Your task to perform on an android device: allow cookies in the chrome app Image 0: 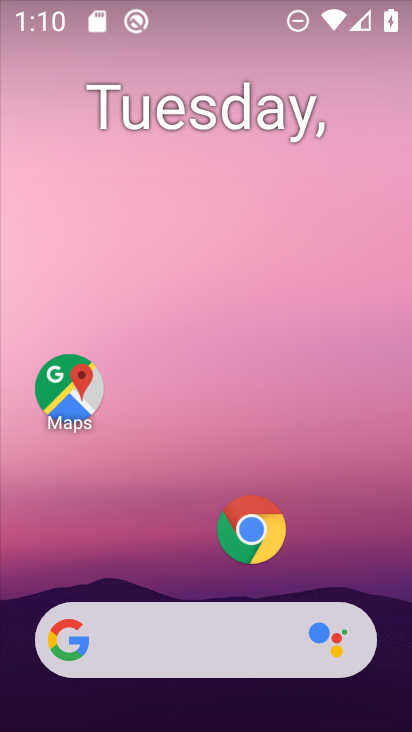
Step 0: drag from (175, 676) to (211, 257)
Your task to perform on an android device: allow cookies in the chrome app Image 1: 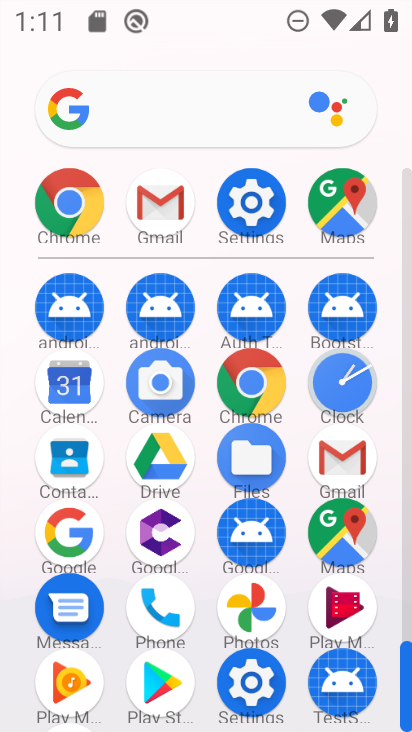
Step 1: click (84, 201)
Your task to perform on an android device: allow cookies in the chrome app Image 2: 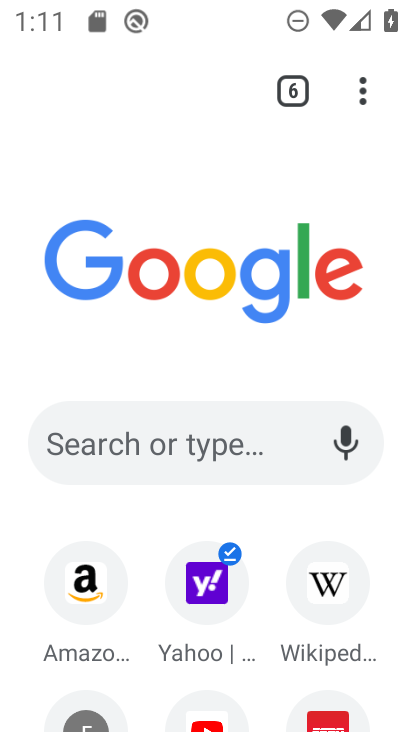
Step 2: click (368, 105)
Your task to perform on an android device: allow cookies in the chrome app Image 3: 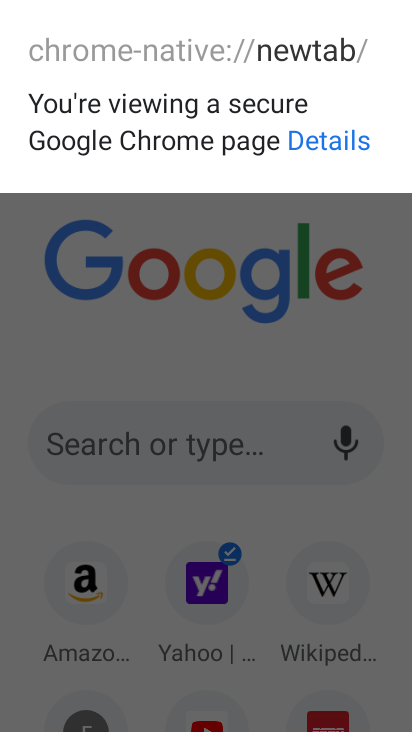
Step 3: click (253, 286)
Your task to perform on an android device: allow cookies in the chrome app Image 4: 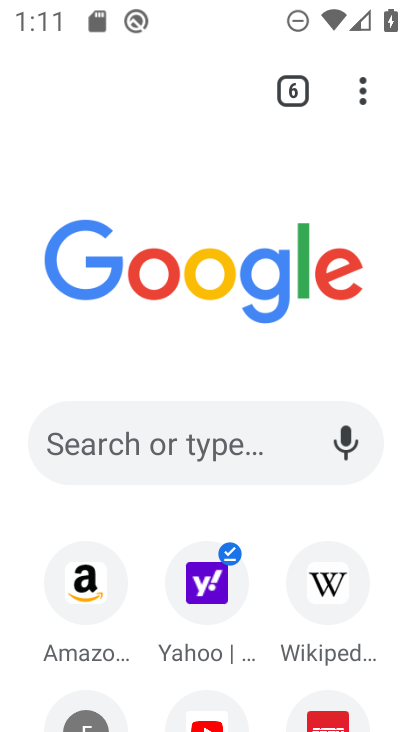
Step 4: click (368, 99)
Your task to perform on an android device: allow cookies in the chrome app Image 5: 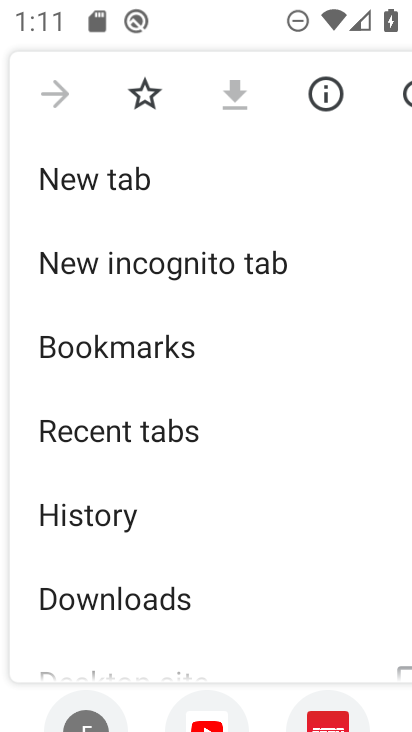
Step 5: drag from (161, 590) to (232, 289)
Your task to perform on an android device: allow cookies in the chrome app Image 6: 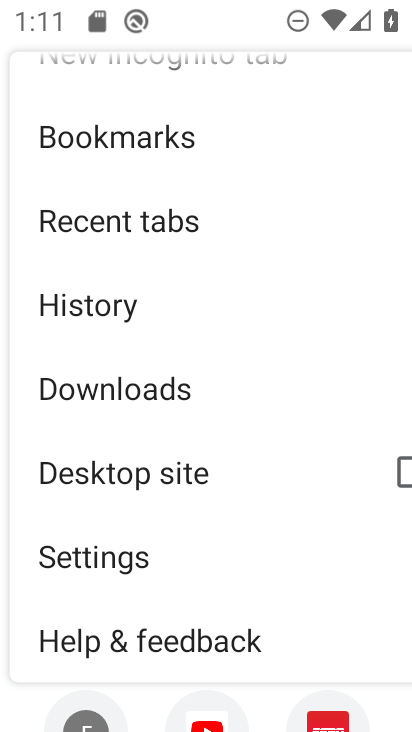
Step 6: click (92, 544)
Your task to perform on an android device: allow cookies in the chrome app Image 7: 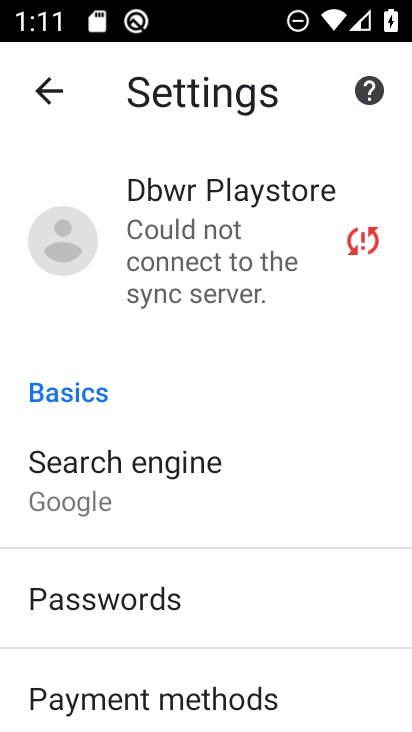
Step 7: drag from (71, 674) to (148, 362)
Your task to perform on an android device: allow cookies in the chrome app Image 8: 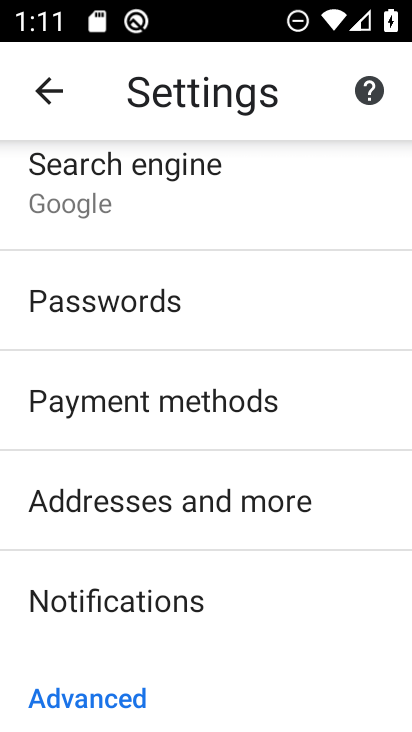
Step 8: drag from (162, 658) to (200, 485)
Your task to perform on an android device: allow cookies in the chrome app Image 9: 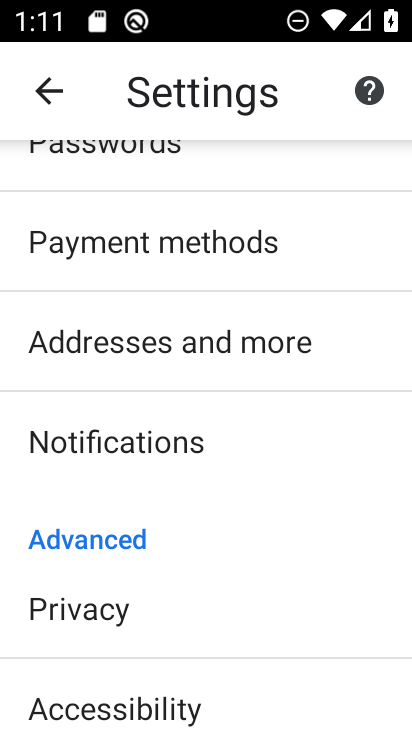
Step 9: drag from (164, 636) to (199, 493)
Your task to perform on an android device: allow cookies in the chrome app Image 10: 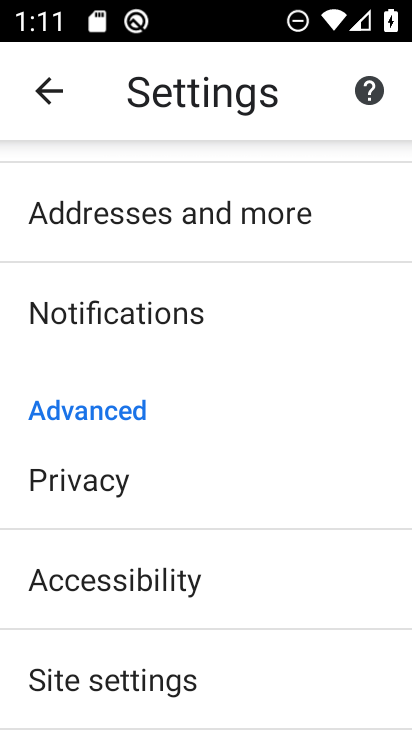
Step 10: click (107, 669)
Your task to perform on an android device: allow cookies in the chrome app Image 11: 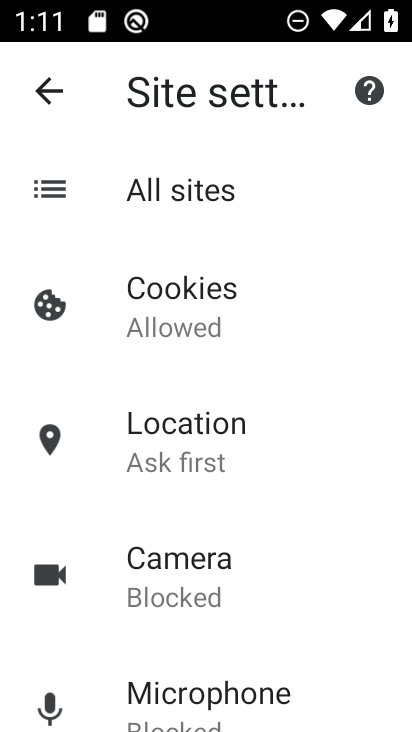
Step 11: click (212, 313)
Your task to perform on an android device: allow cookies in the chrome app Image 12: 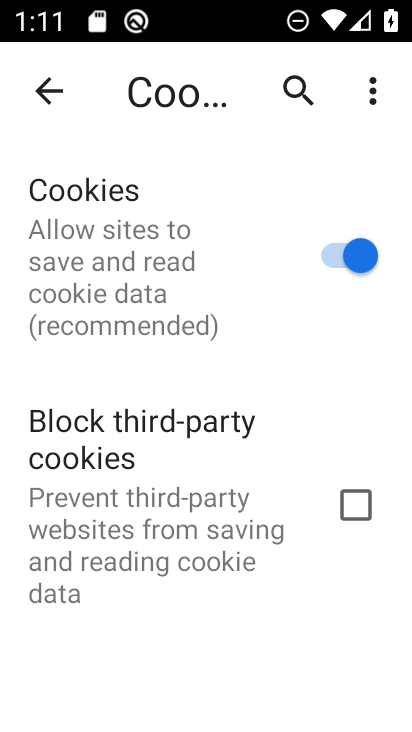
Step 12: click (354, 253)
Your task to perform on an android device: allow cookies in the chrome app Image 13: 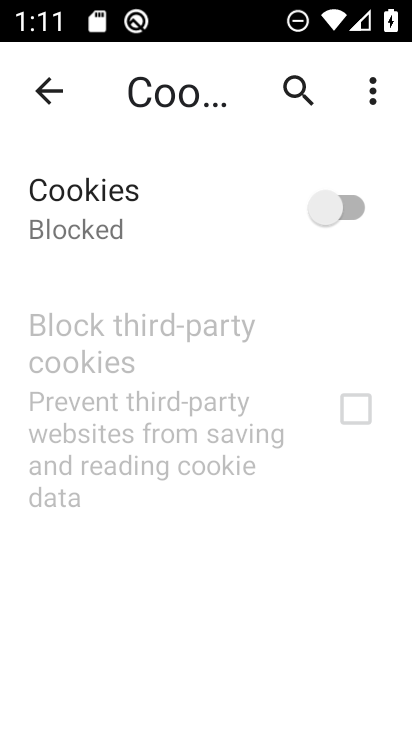
Step 13: click (343, 196)
Your task to perform on an android device: allow cookies in the chrome app Image 14: 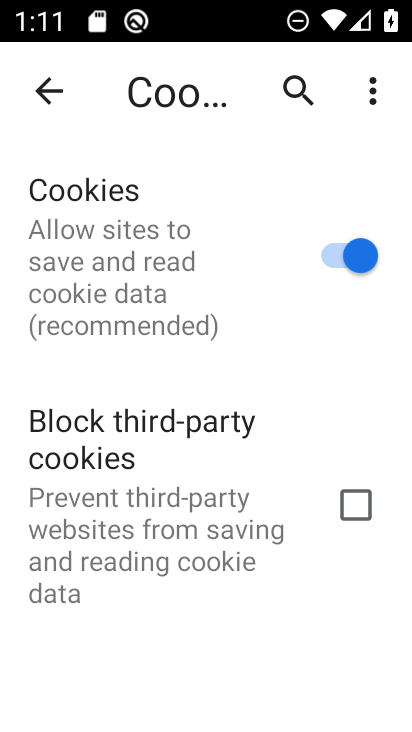
Step 14: task complete